Your task to perform on an android device: Open Android settings Image 0: 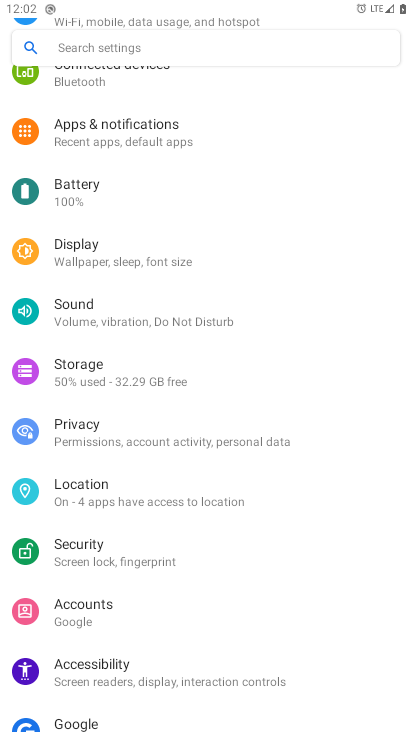
Step 0: press home button
Your task to perform on an android device: Open Android settings Image 1: 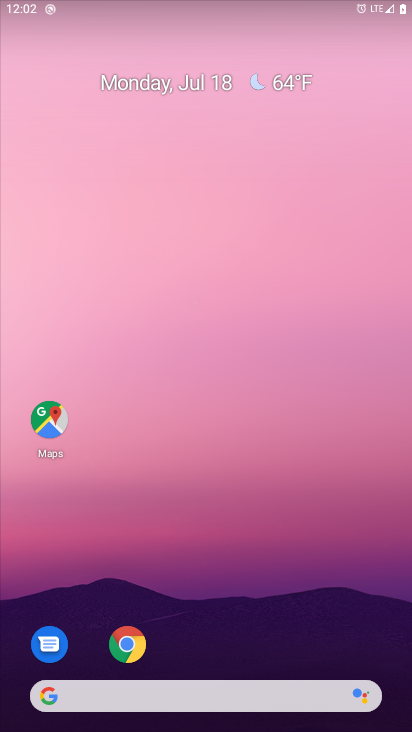
Step 1: drag from (329, 600) to (336, 35)
Your task to perform on an android device: Open Android settings Image 2: 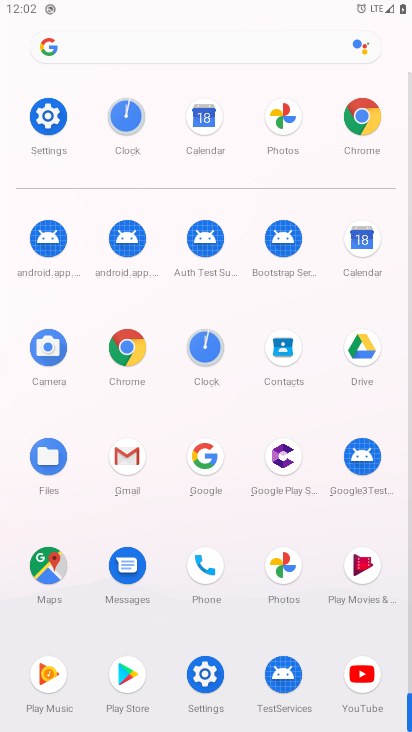
Step 2: click (52, 117)
Your task to perform on an android device: Open Android settings Image 3: 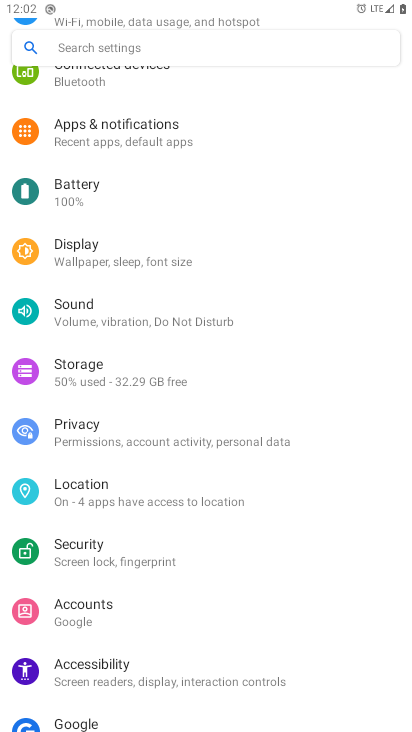
Step 3: task complete